Your task to perform on an android device: see creations saved in the google photos Image 0: 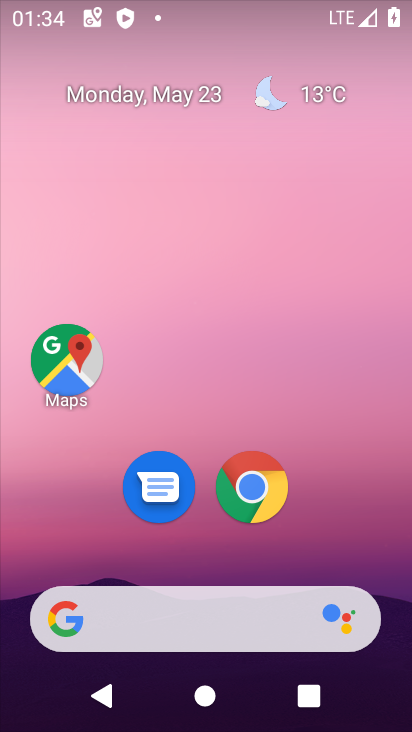
Step 0: drag from (396, 612) to (320, 8)
Your task to perform on an android device: see creations saved in the google photos Image 1: 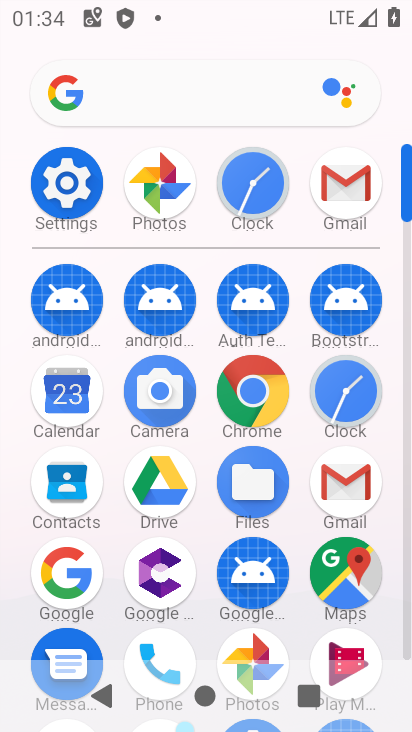
Step 1: click (406, 650)
Your task to perform on an android device: see creations saved in the google photos Image 2: 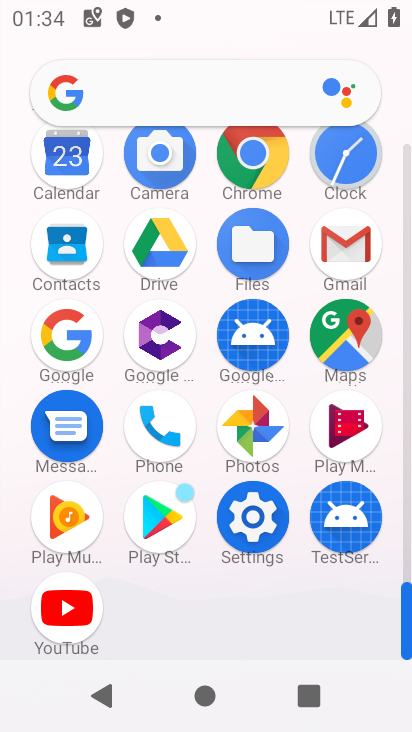
Step 2: click (247, 416)
Your task to perform on an android device: see creations saved in the google photos Image 3: 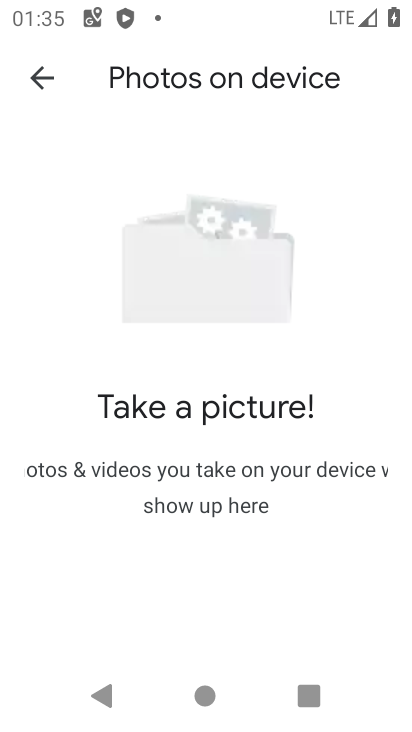
Step 3: task complete